Your task to perform on an android device: What's the weather today? Image 0: 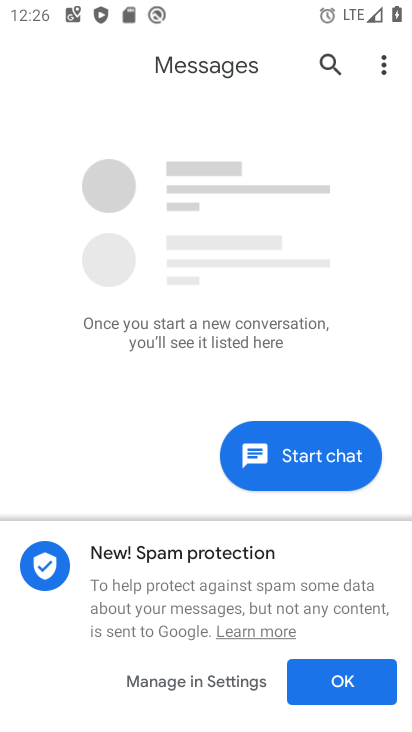
Step 0: press home button
Your task to perform on an android device: What's the weather today? Image 1: 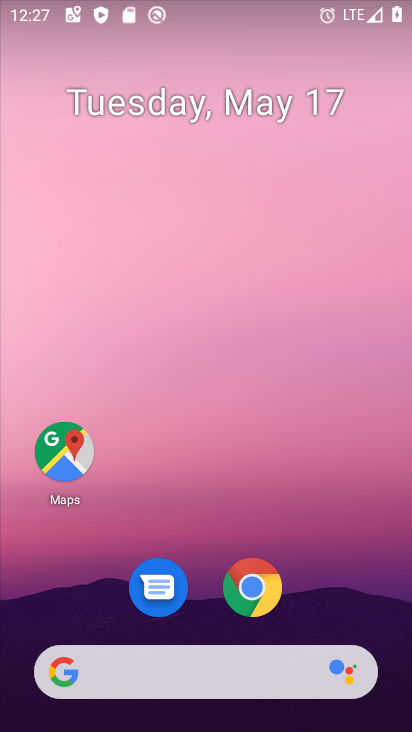
Step 1: drag from (389, 632) to (272, 89)
Your task to perform on an android device: What's the weather today? Image 2: 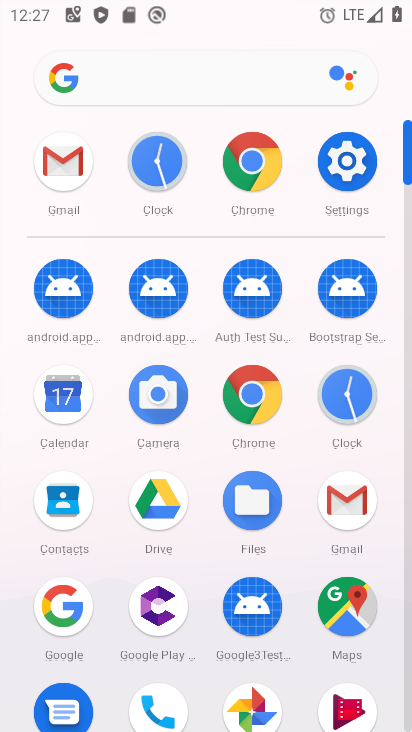
Step 2: click (58, 608)
Your task to perform on an android device: What's the weather today? Image 3: 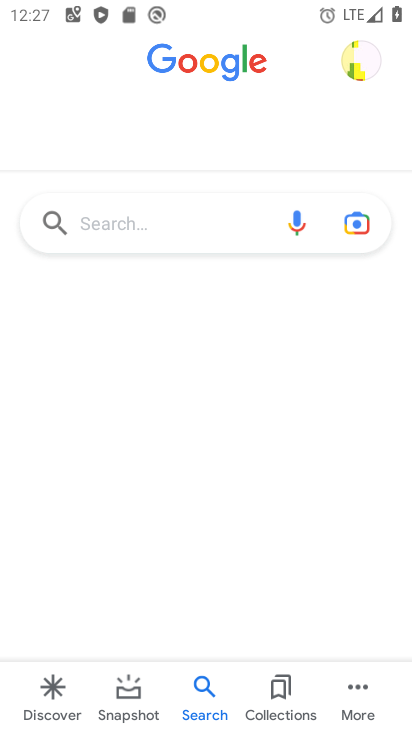
Step 3: click (123, 209)
Your task to perform on an android device: What's the weather today? Image 4: 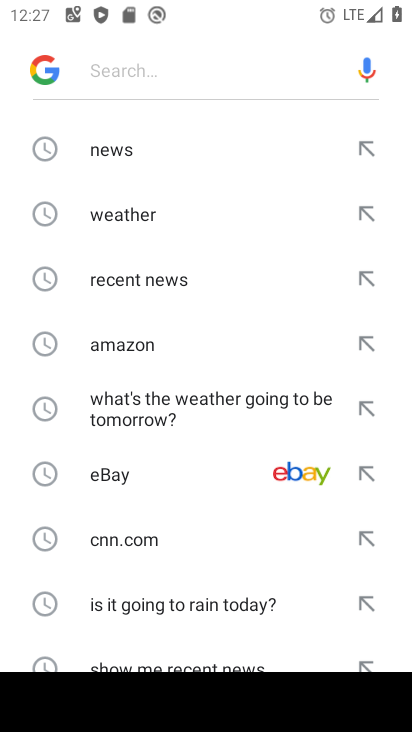
Step 4: drag from (178, 588) to (216, 268)
Your task to perform on an android device: What's the weather today? Image 5: 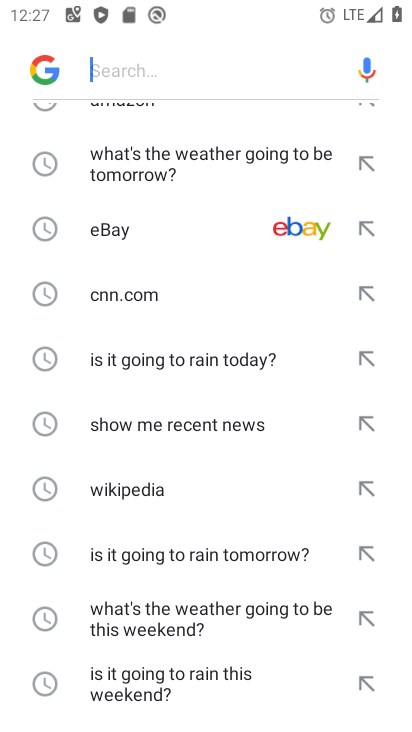
Step 5: drag from (170, 644) to (193, 267)
Your task to perform on an android device: What's the weather today? Image 6: 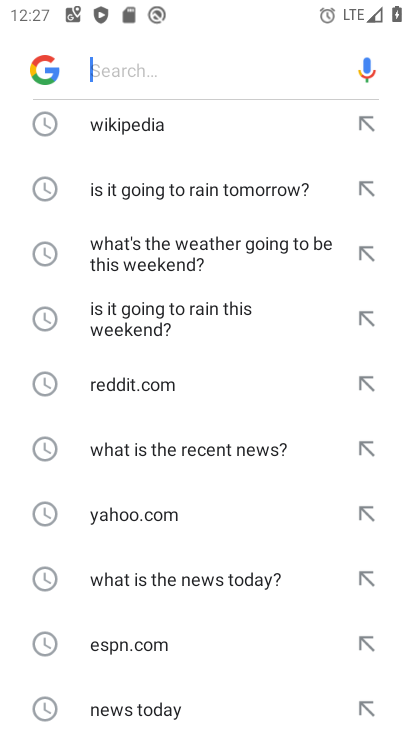
Step 6: drag from (161, 622) to (204, 260)
Your task to perform on an android device: What's the weather today? Image 7: 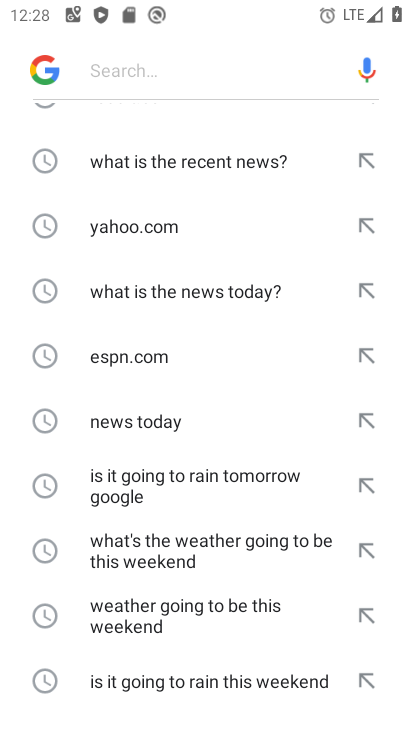
Step 7: drag from (140, 634) to (197, 278)
Your task to perform on an android device: What's the weather today? Image 8: 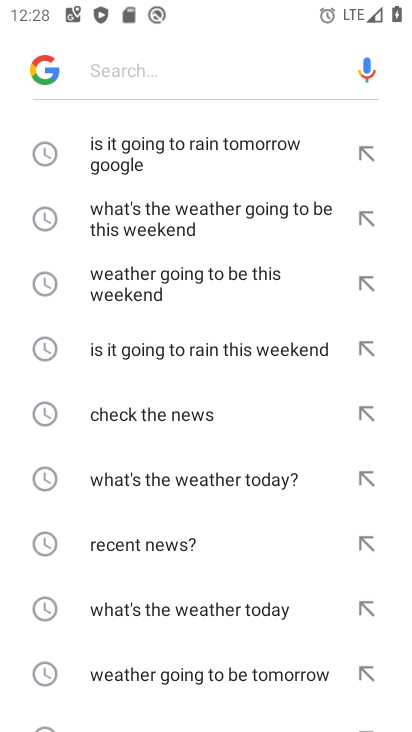
Step 8: click (190, 480)
Your task to perform on an android device: What's the weather today? Image 9: 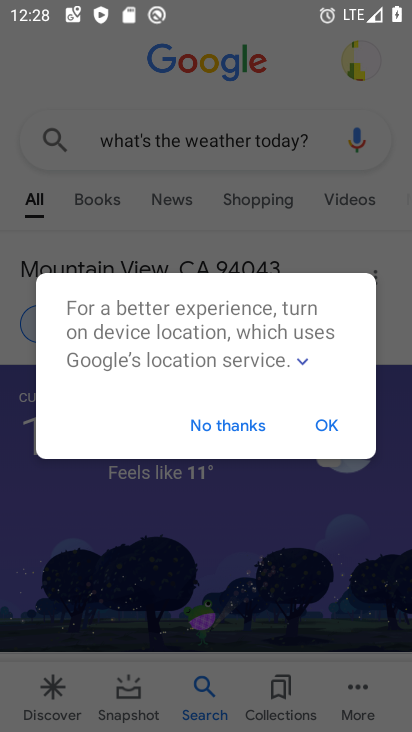
Step 9: task complete